Your task to perform on an android device: Open wifi settings Image 0: 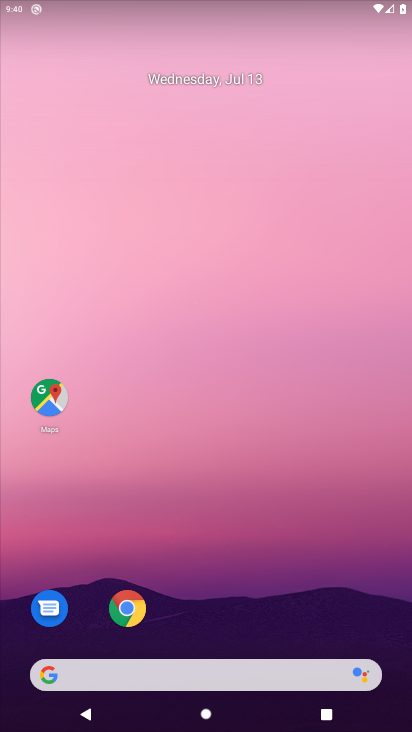
Step 0: drag from (276, 304) to (404, 145)
Your task to perform on an android device: Open wifi settings Image 1: 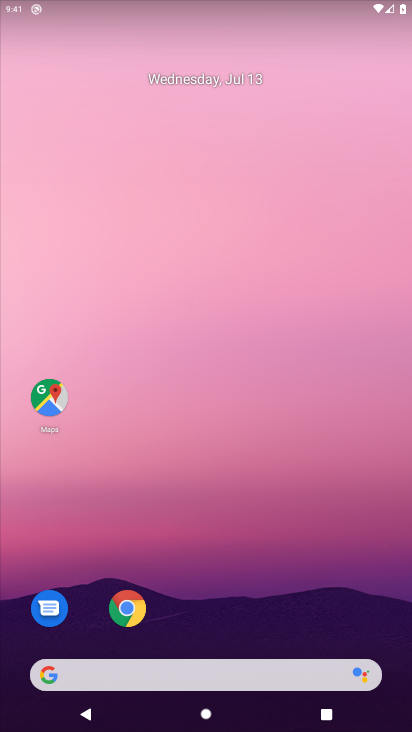
Step 1: drag from (204, 438) to (410, 385)
Your task to perform on an android device: Open wifi settings Image 2: 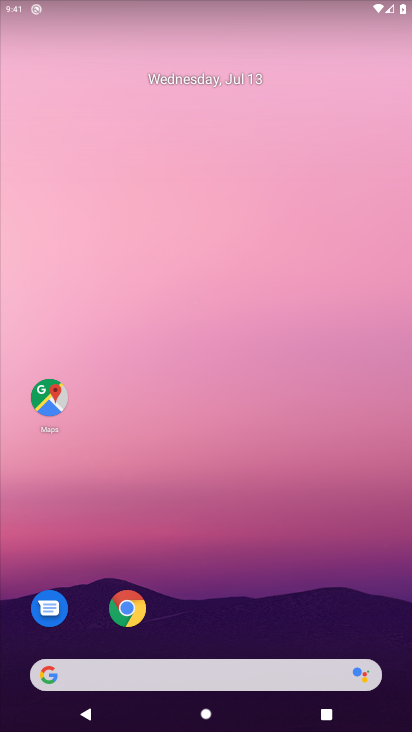
Step 2: drag from (22, 707) to (357, 4)
Your task to perform on an android device: Open wifi settings Image 3: 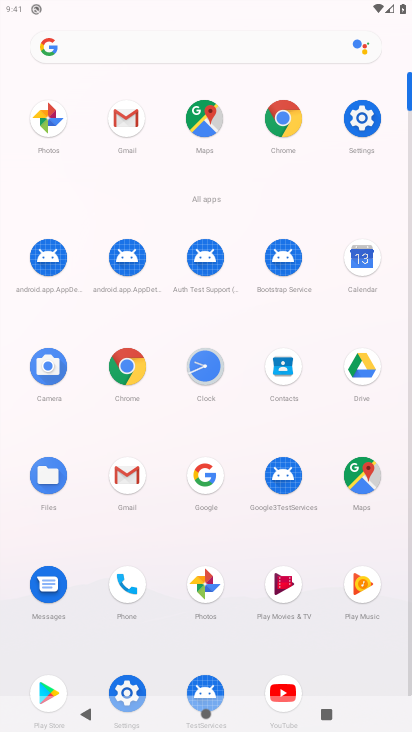
Step 3: click (130, 687)
Your task to perform on an android device: Open wifi settings Image 4: 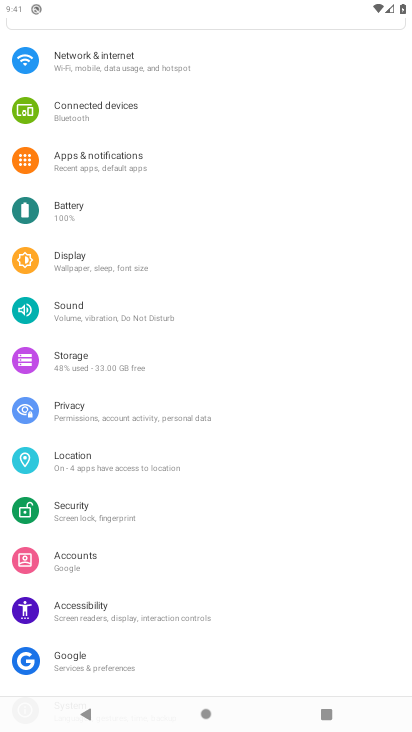
Step 4: click (113, 70)
Your task to perform on an android device: Open wifi settings Image 5: 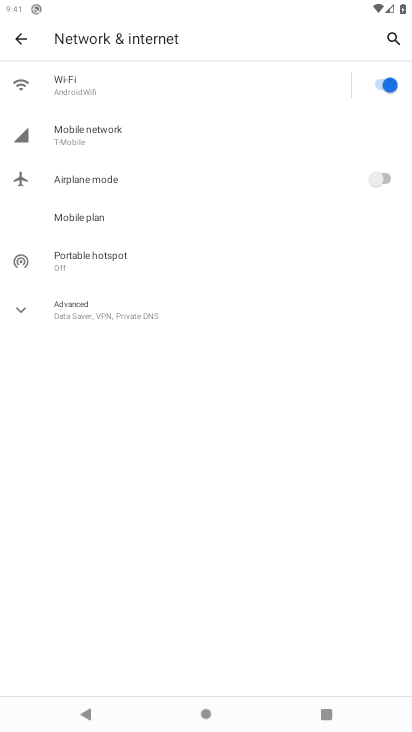
Step 5: task complete